Your task to perform on an android device: set default search engine in the chrome app Image 0: 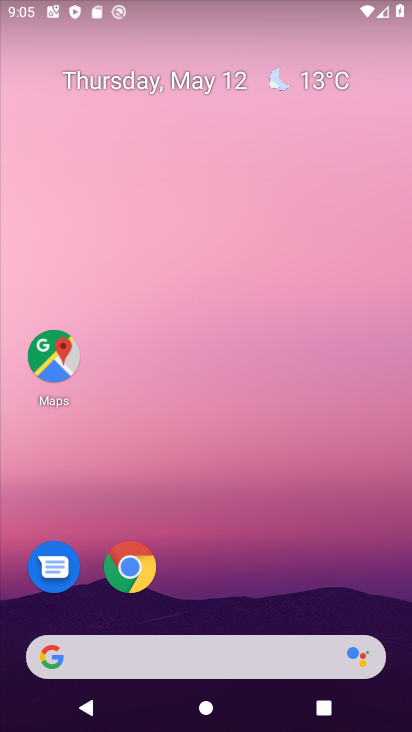
Step 0: click (131, 569)
Your task to perform on an android device: set default search engine in the chrome app Image 1: 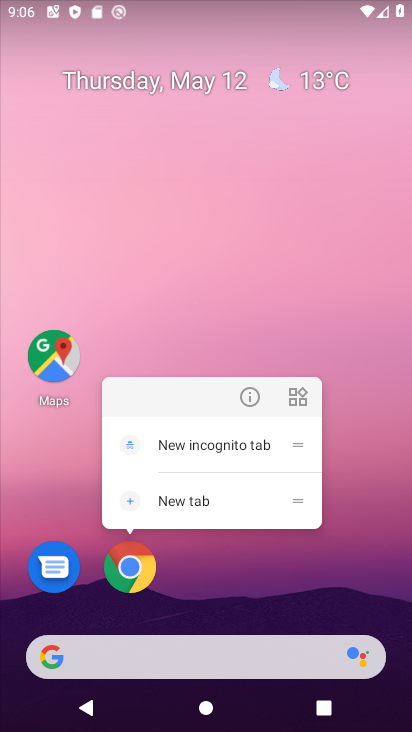
Step 1: click (223, 590)
Your task to perform on an android device: set default search engine in the chrome app Image 2: 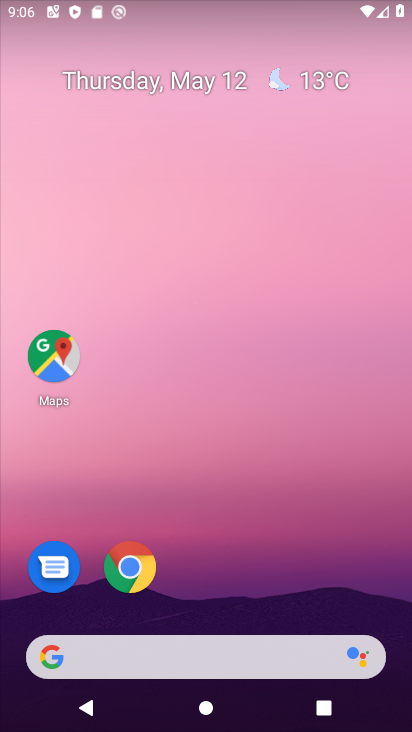
Step 2: click (135, 567)
Your task to perform on an android device: set default search engine in the chrome app Image 3: 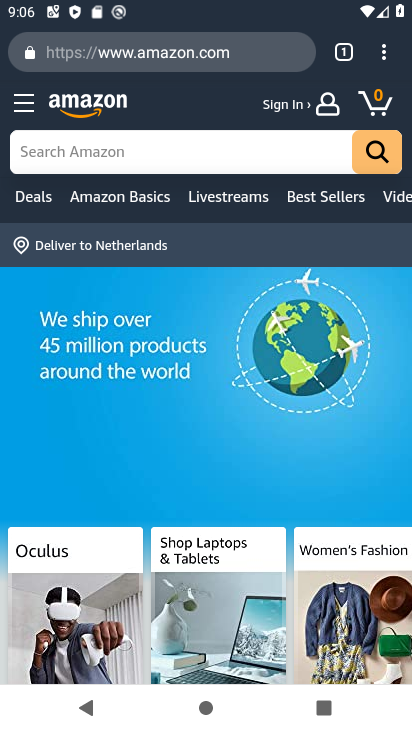
Step 3: click (381, 55)
Your task to perform on an android device: set default search engine in the chrome app Image 4: 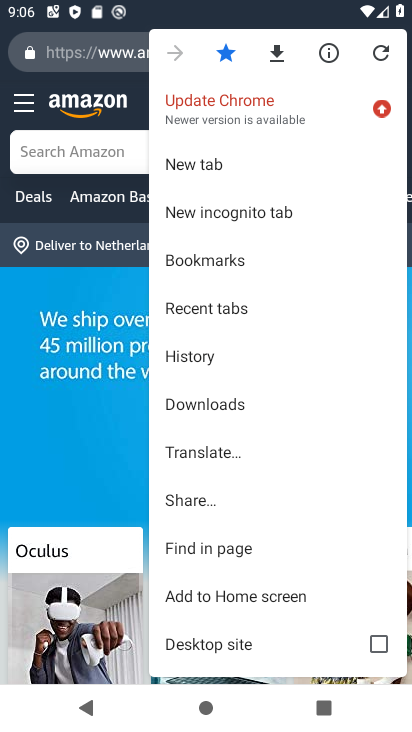
Step 4: drag from (235, 601) to (264, 310)
Your task to perform on an android device: set default search engine in the chrome app Image 5: 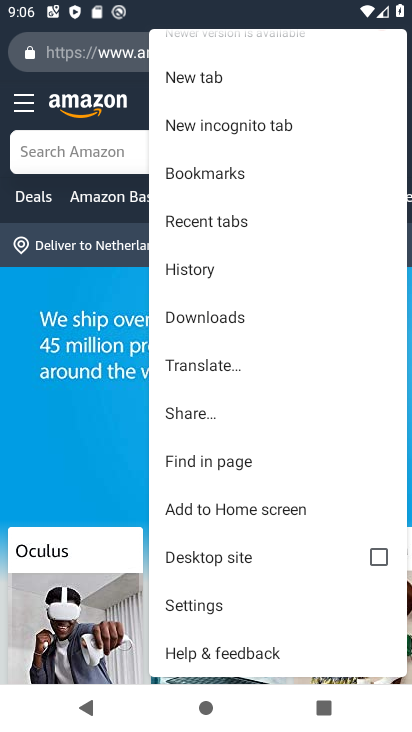
Step 5: click (208, 607)
Your task to perform on an android device: set default search engine in the chrome app Image 6: 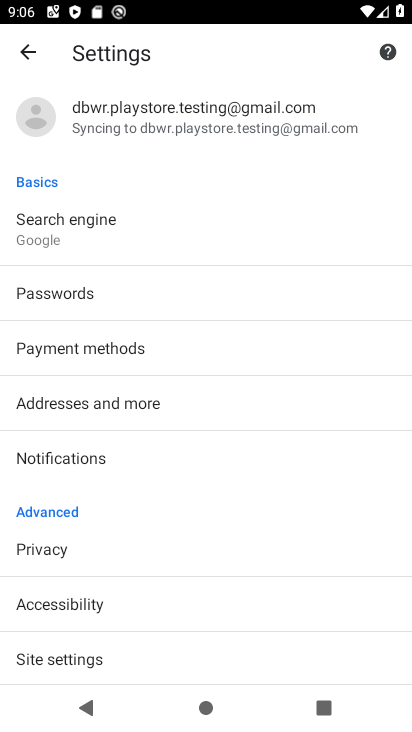
Step 6: click (104, 229)
Your task to perform on an android device: set default search engine in the chrome app Image 7: 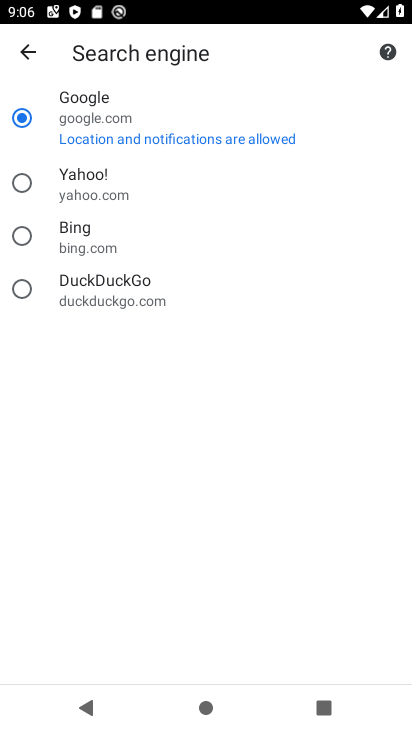
Step 7: click (21, 233)
Your task to perform on an android device: set default search engine in the chrome app Image 8: 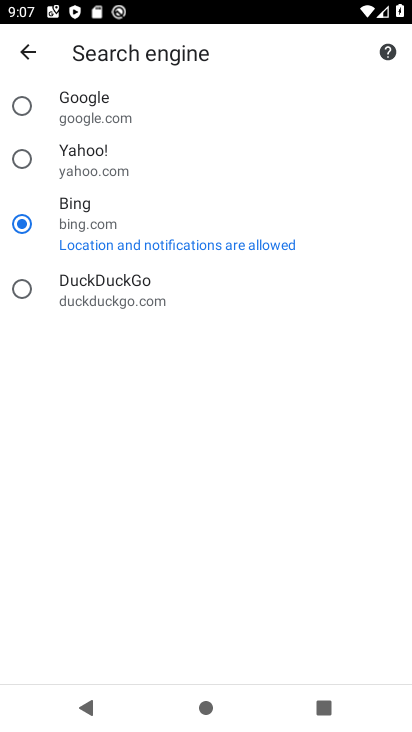
Step 8: task complete